Your task to perform on an android device: open sync settings in chrome Image 0: 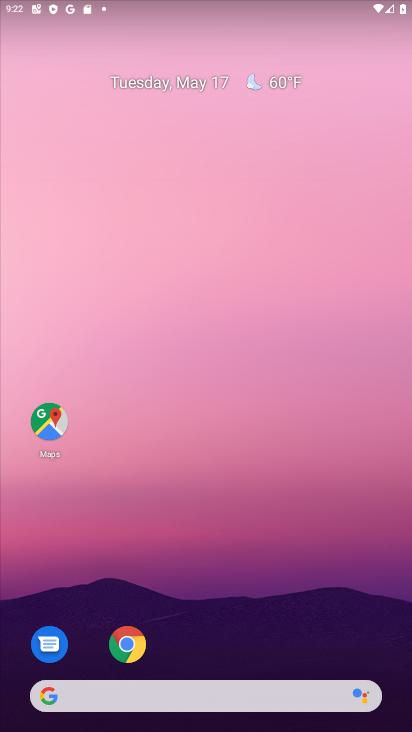
Step 0: click (131, 646)
Your task to perform on an android device: open sync settings in chrome Image 1: 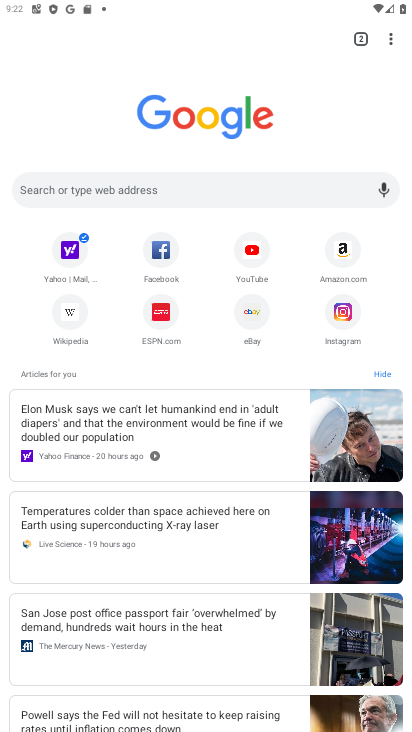
Step 1: click (382, 37)
Your task to perform on an android device: open sync settings in chrome Image 2: 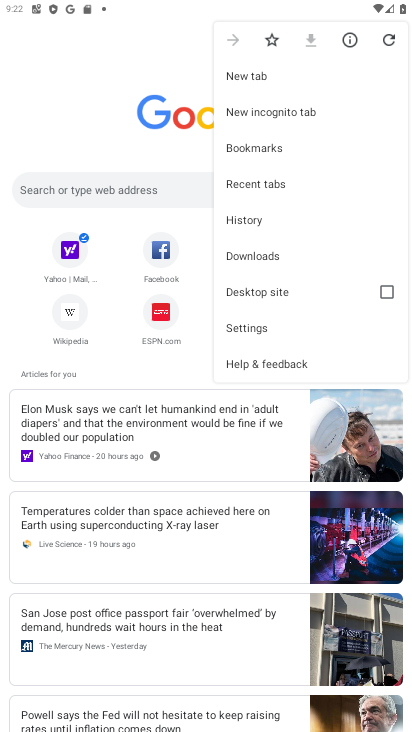
Step 2: click (260, 338)
Your task to perform on an android device: open sync settings in chrome Image 3: 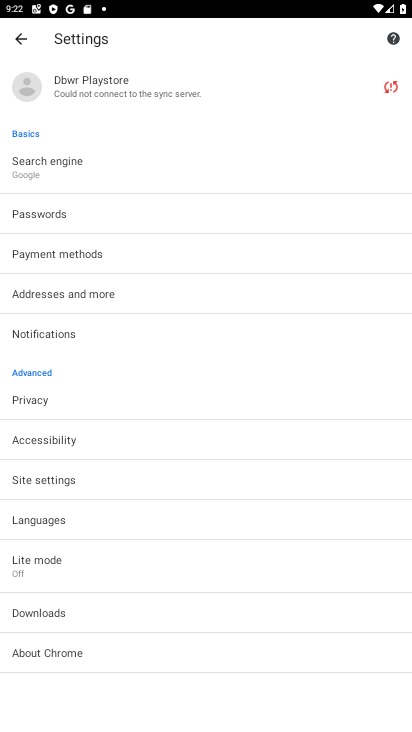
Step 3: click (115, 90)
Your task to perform on an android device: open sync settings in chrome Image 4: 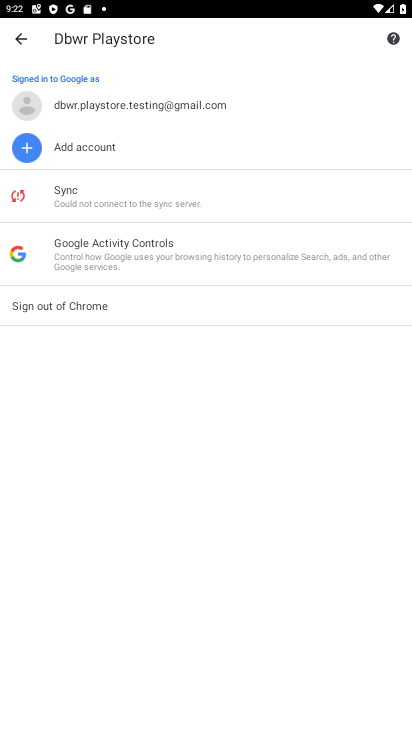
Step 4: click (96, 188)
Your task to perform on an android device: open sync settings in chrome Image 5: 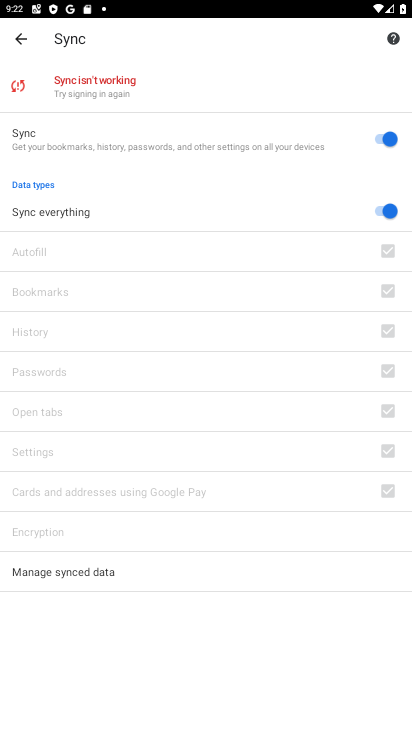
Step 5: task complete